Your task to perform on an android device: Is it going to rain tomorrow? Image 0: 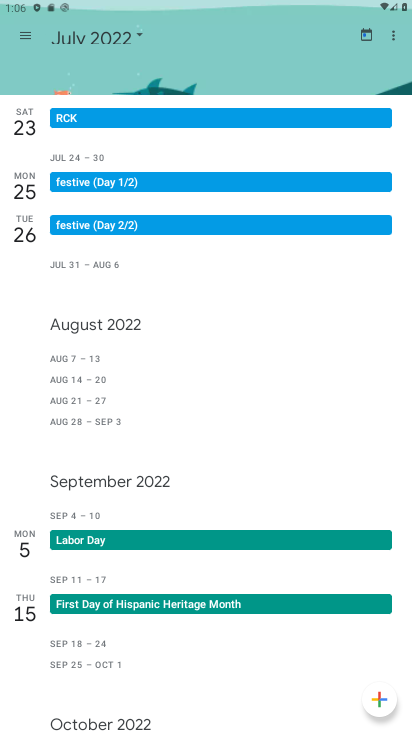
Step 0: press home button
Your task to perform on an android device: Is it going to rain tomorrow? Image 1: 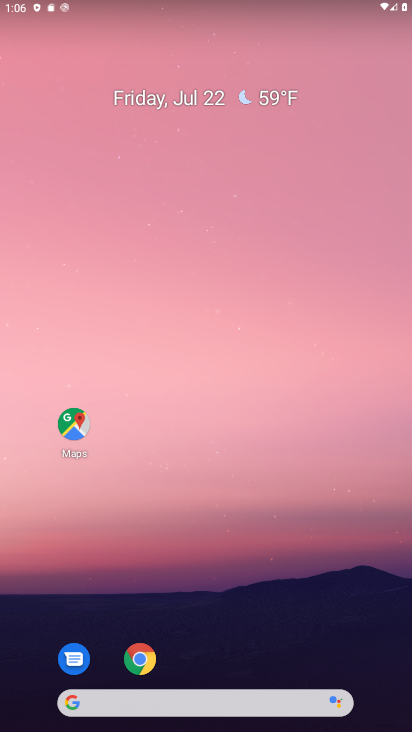
Step 1: drag from (198, 643) to (219, 201)
Your task to perform on an android device: Is it going to rain tomorrow? Image 2: 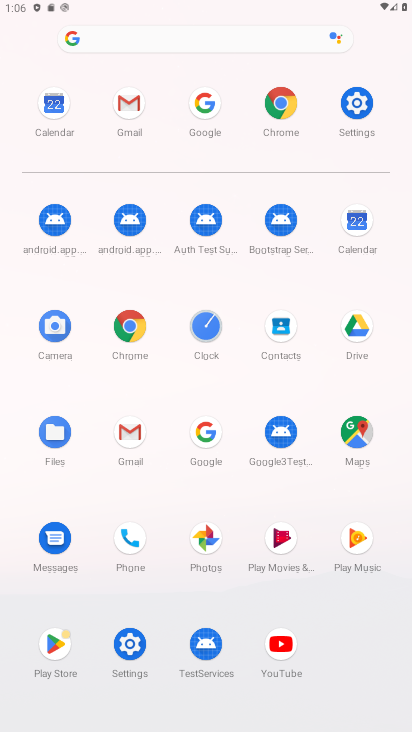
Step 2: click (195, 442)
Your task to perform on an android device: Is it going to rain tomorrow? Image 3: 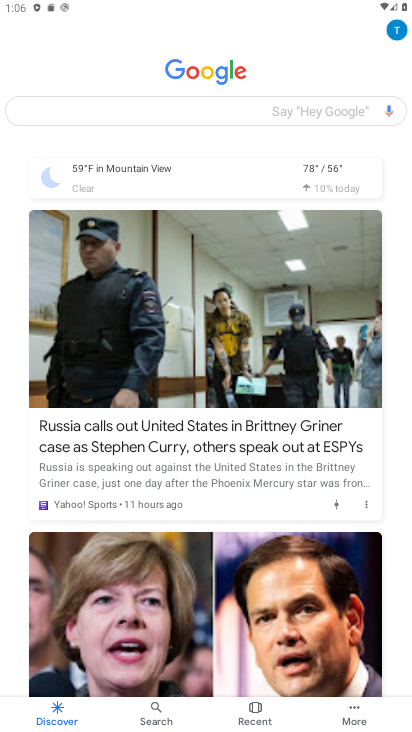
Step 3: click (206, 110)
Your task to perform on an android device: Is it going to rain tomorrow? Image 4: 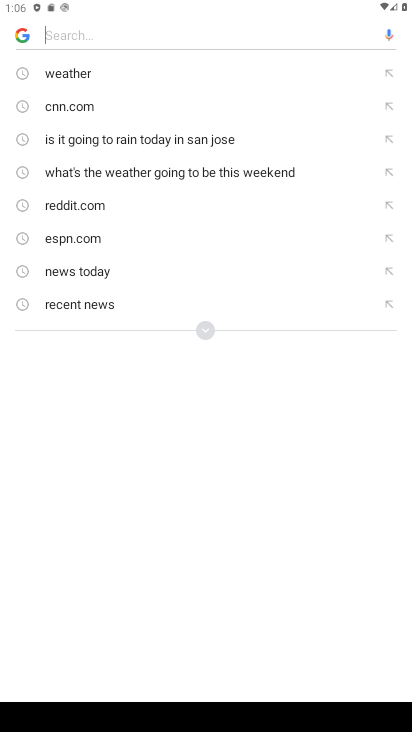
Step 4: press back button
Your task to perform on an android device: Is it going to rain tomorrow? Image 5: 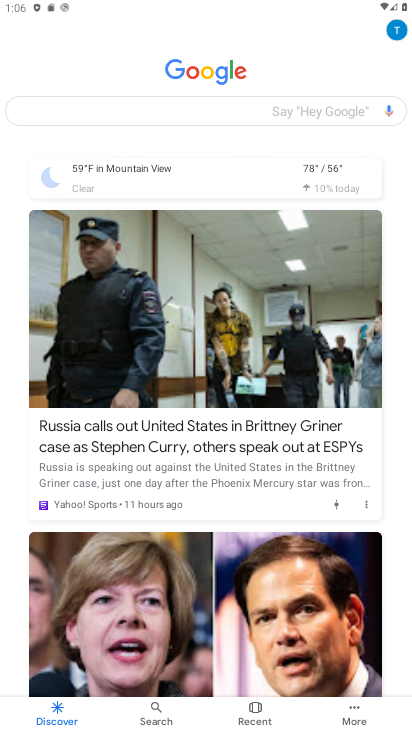
Step 5: click (95, 175)
Your task to perform on an android device: Is it going to rain tomorrow? Image 6: 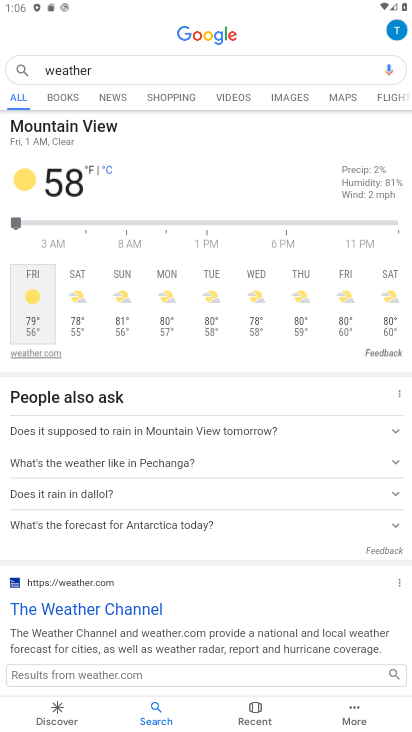
Step 6: task complete